Your task to perform on an android device: set the timer Image 0: 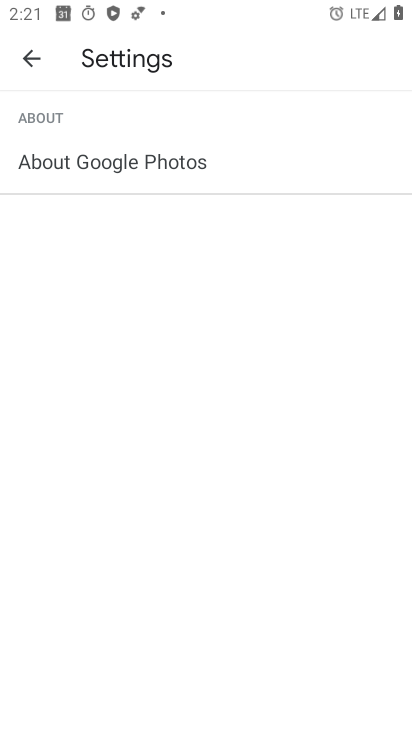
Step 0: press home button
Your task to perform on an android device: set the timer Image 1: 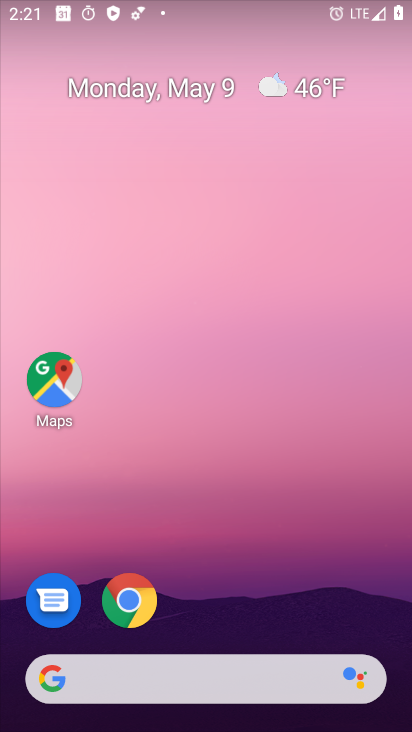
Step 1: drag from (217, 687) to (213, 154)
Your task to perform on an android device: set the timer Image 2: 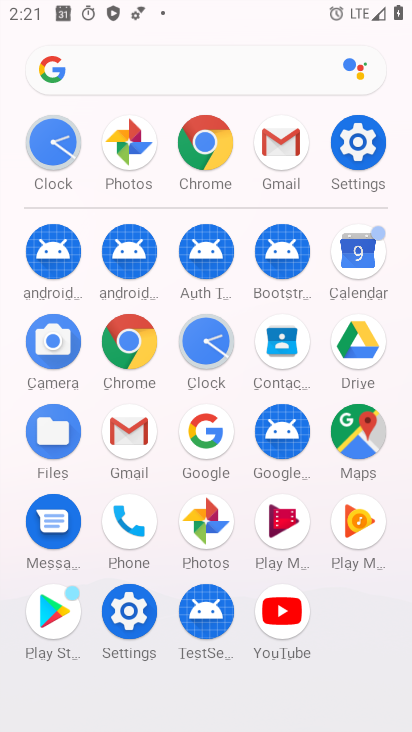
Step 2: click (205, 351)
Your task to perform on an android device: set the timer Image 3: 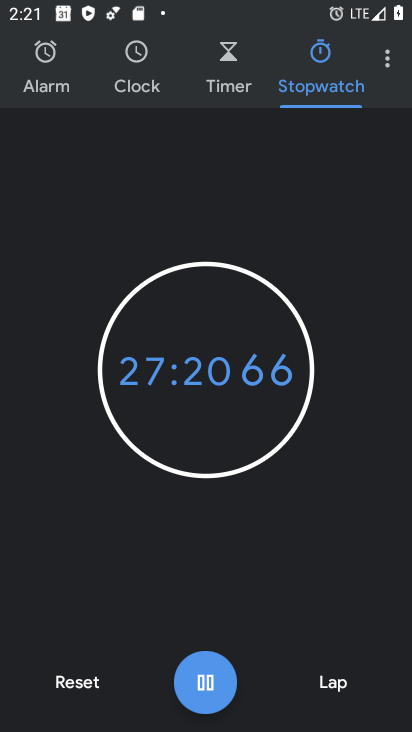
Step 3: click (225, 69)
Your task to perform on an android device: set the timer Image 4: 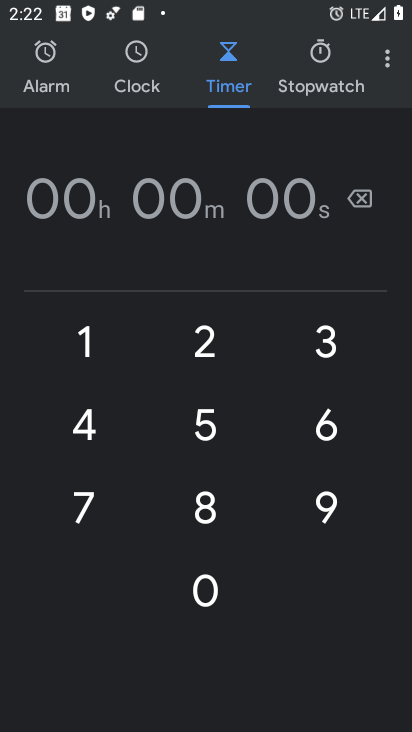
Step 4: click (225, 69)
Your task to perform on an android device: set the timer Image 5: 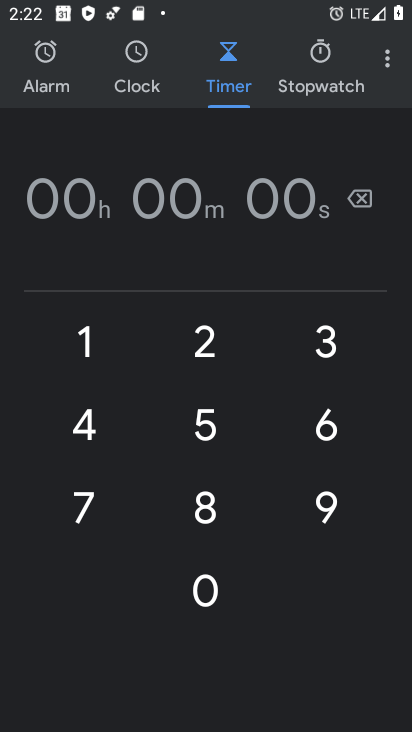
Step 5: drag from (66, 414) to (92, 344)
Your task to perform on an android device: set the timer Image 6: 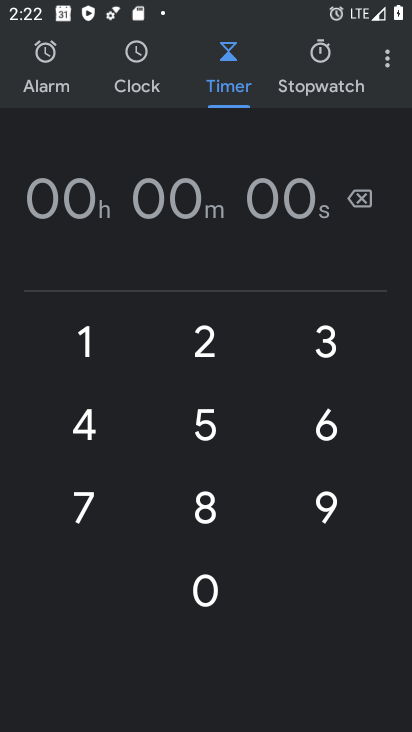
Step 6: click (107, 504)
Your task to perform on an android device: set the timer Image 7: 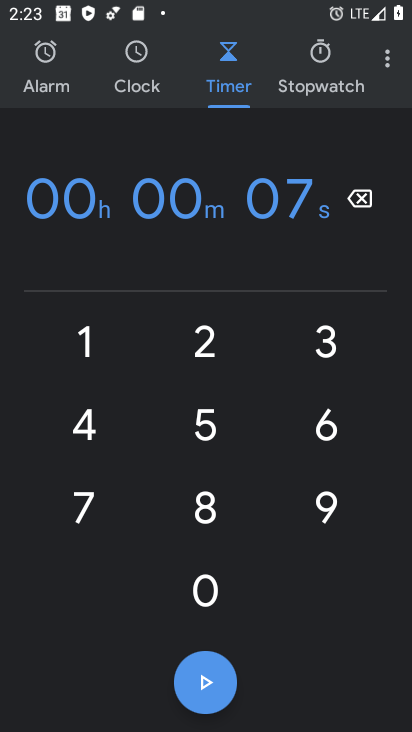
Step 7: click (163, 508)
Your task to perform on an android device: set the timer Image 8: 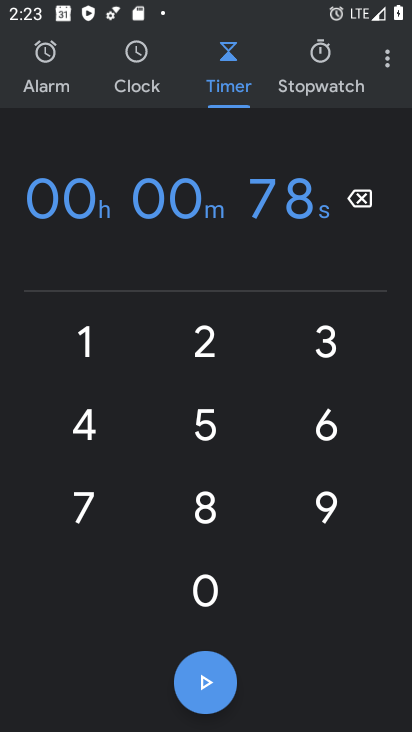
Step 8: click (196, 654)
Your task to perform on an android device: set the timer Image 9: 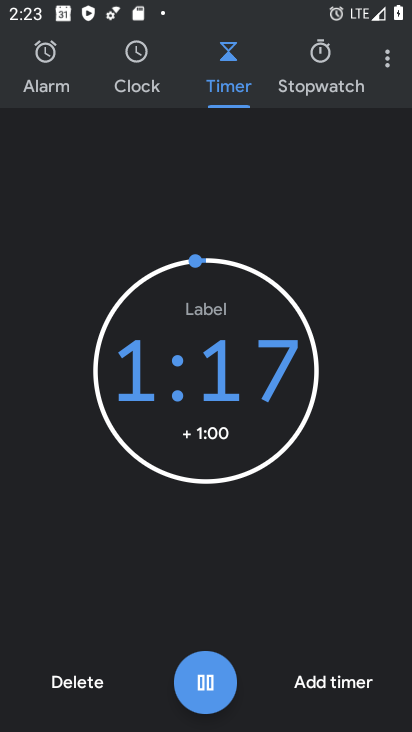
Step 9: task complete